Your task to perform on an android device: Go to battery settings Image 0: 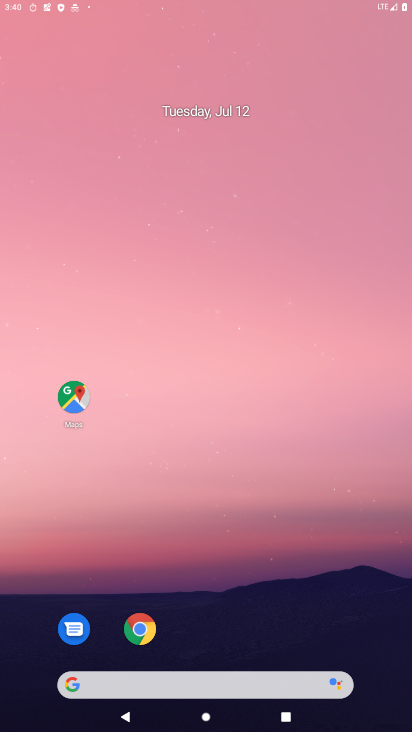
Step 0: drag from (322, 607) to (330, 62)
Your task to perform on an android device: Go to battery settings Image 1: 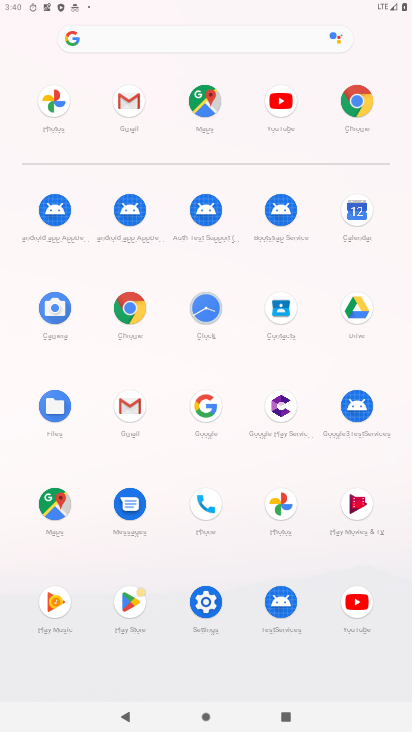
Step 1: click (201, 605)
Your task to perform on an android device: Go to battery settings Image 2: 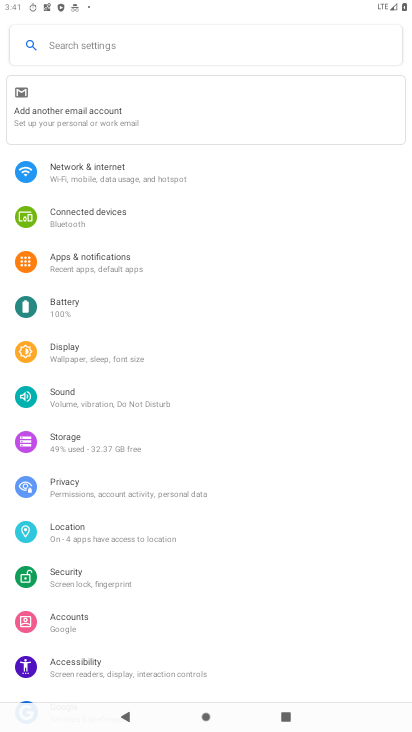
Step 2: click (82, 308)
Your task to perform on an android device: Go to battery settings Image 3: 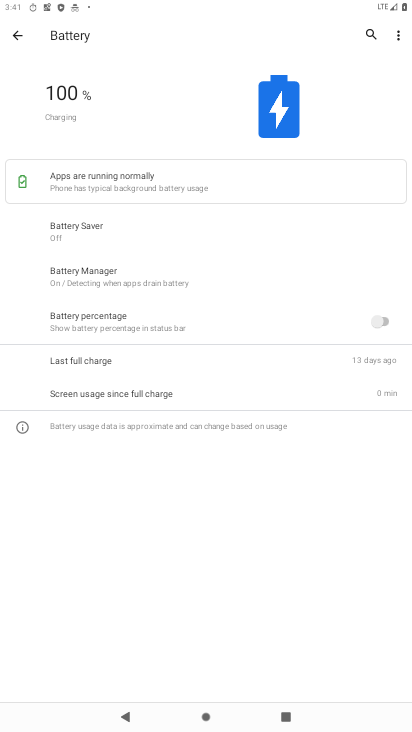
Step 3: task complete